Your task to perform on an android device: Set the phone to "Do not disturb". Image 0: 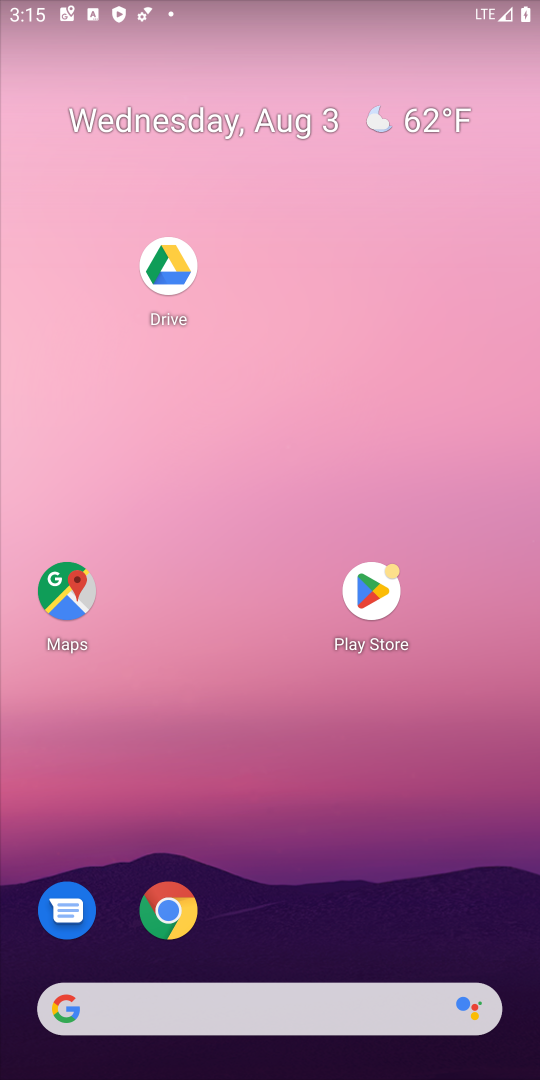
Step 0: drag from (453, 851) to (540, 641)
Your task to perform on an android device: Set the phone to "Do not disturb". Image 1: 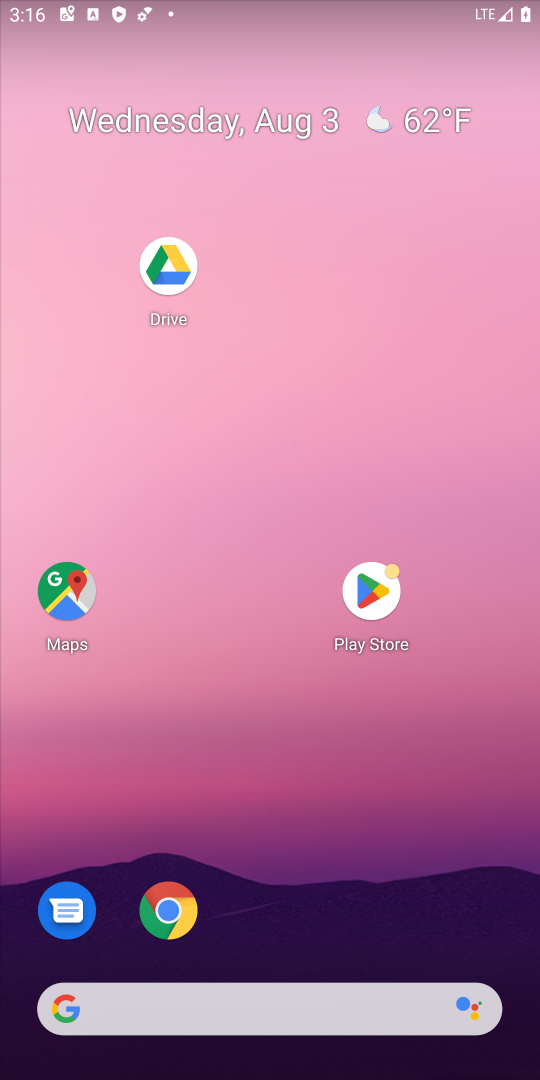
Step 1: drag from (445, 665) to (449, 37)
Your task to perform on an android device: Set the phone to "Do not disturb". Image 2: 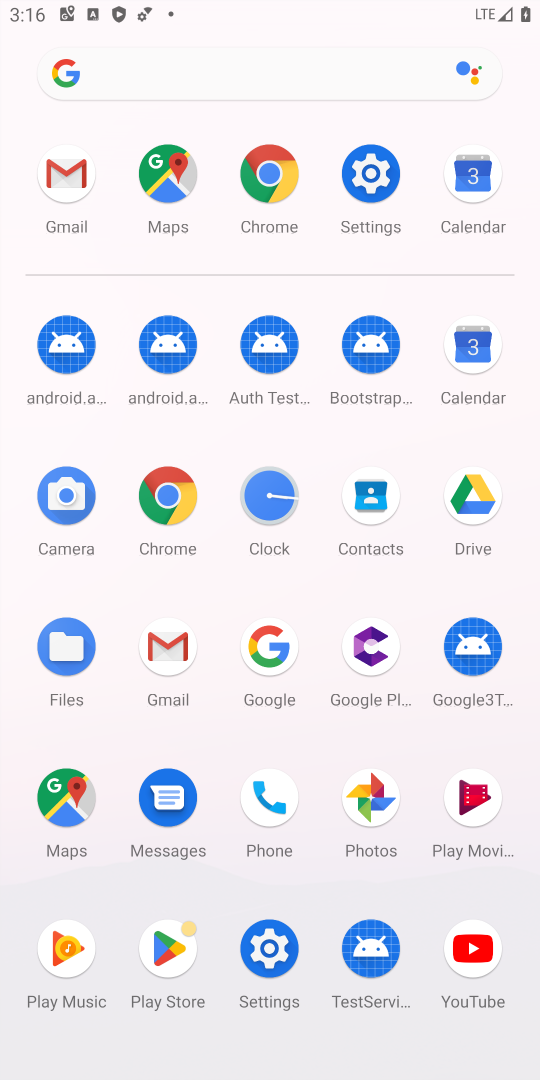
Step 2: click (376, 177)
Your task to perform on an android device: Set the phone to "Do not disturb". Image 3: 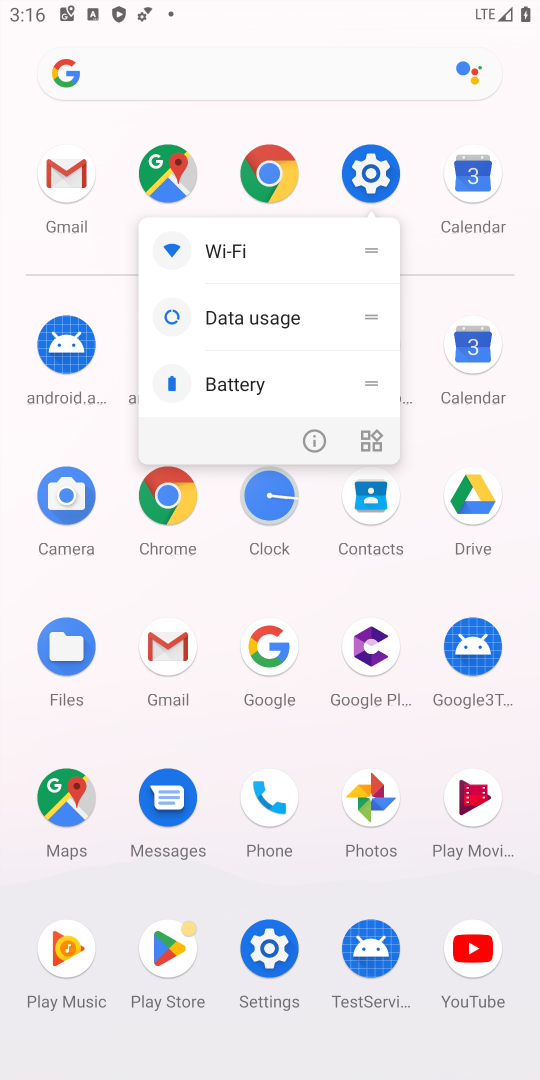
Step 3: click (390, 162)
Your task to perform on an android device: Set the phone to "Do not disturb". Image 4: 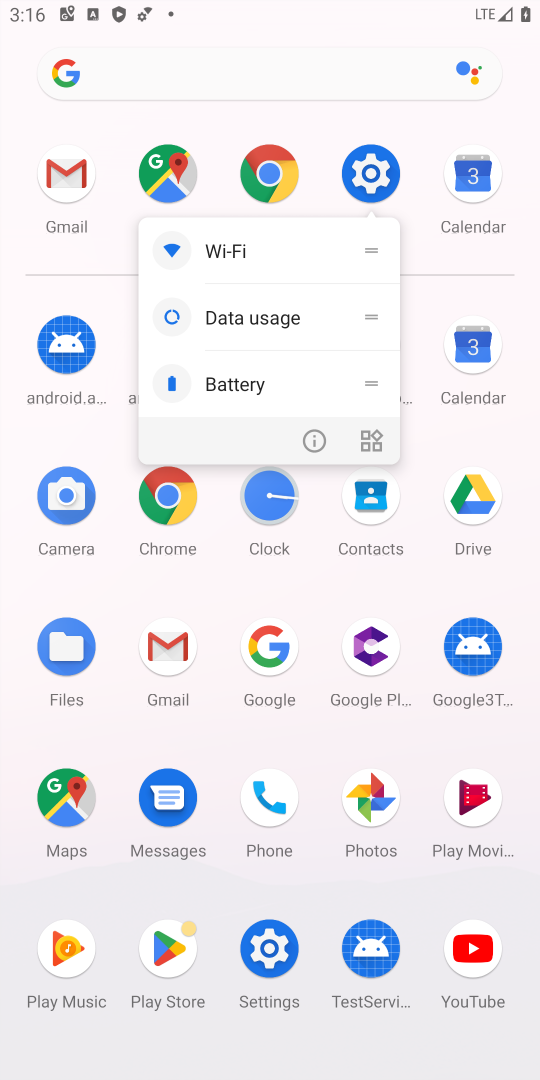
Step 4: click (365, 172)
Your task to perform on an android device: Set the phone to "Do not disturb". Image 5: 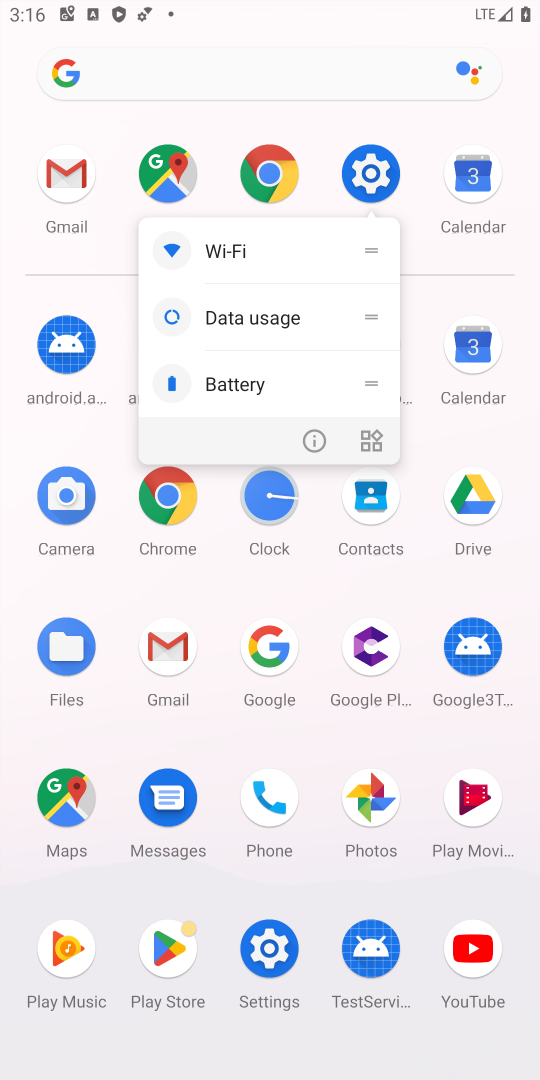
Step 5: click (366, 173)
Your task to perform on an android device: Set the phone to "Do not disturb". Image 6: 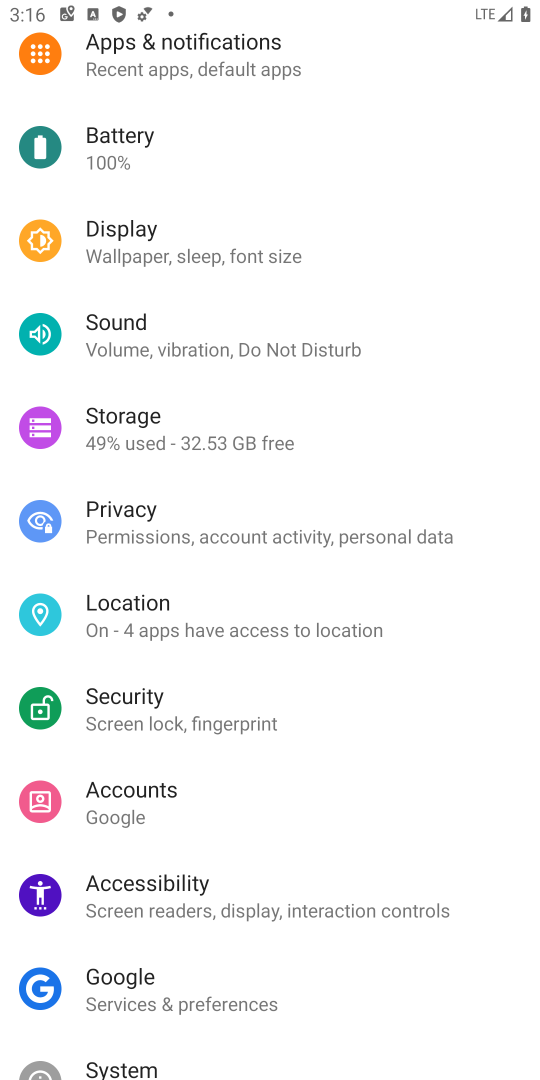
Step 6: click (299, 343)
Your task to perform on an android device: Set the phone to "Do not disturb". Image 7: 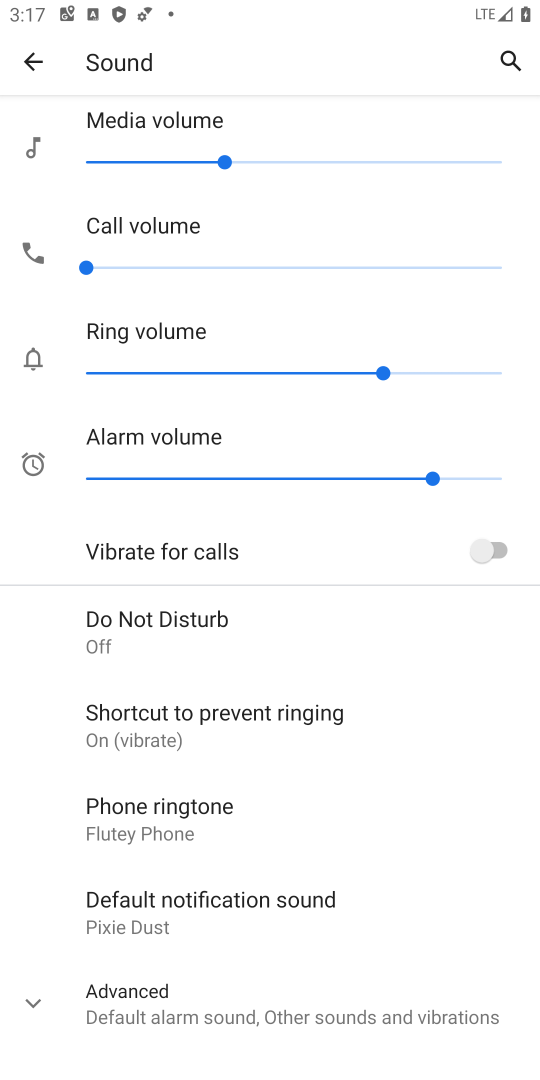
Step 7: click (234, 624)
Your task to perform on an android device: Set the phone to "Do not disturb". Image 8: 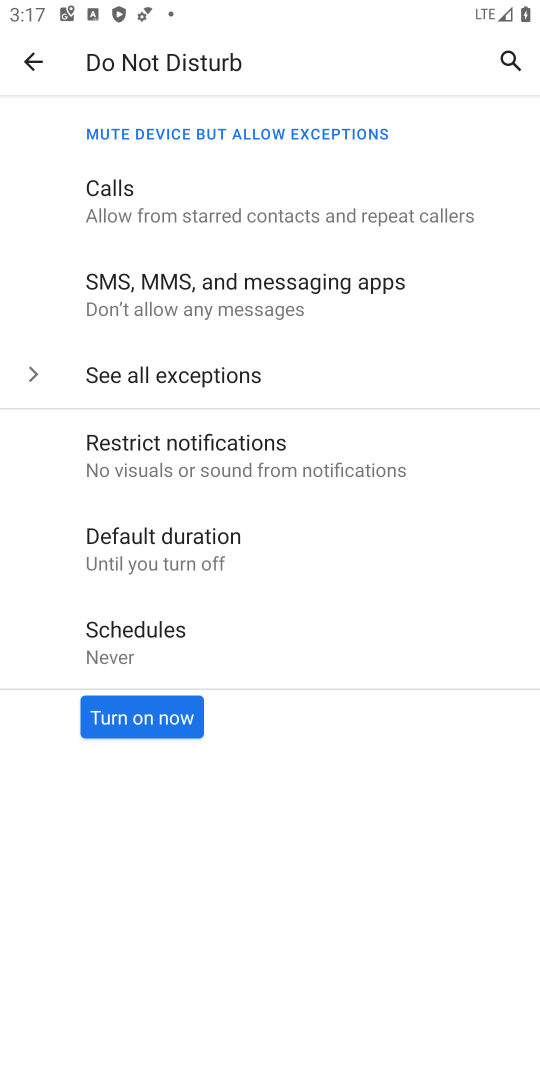
Step 8: click (156, 722)
Your task to perform on an android device: Set the phone to "Do not disturb". Image 9: 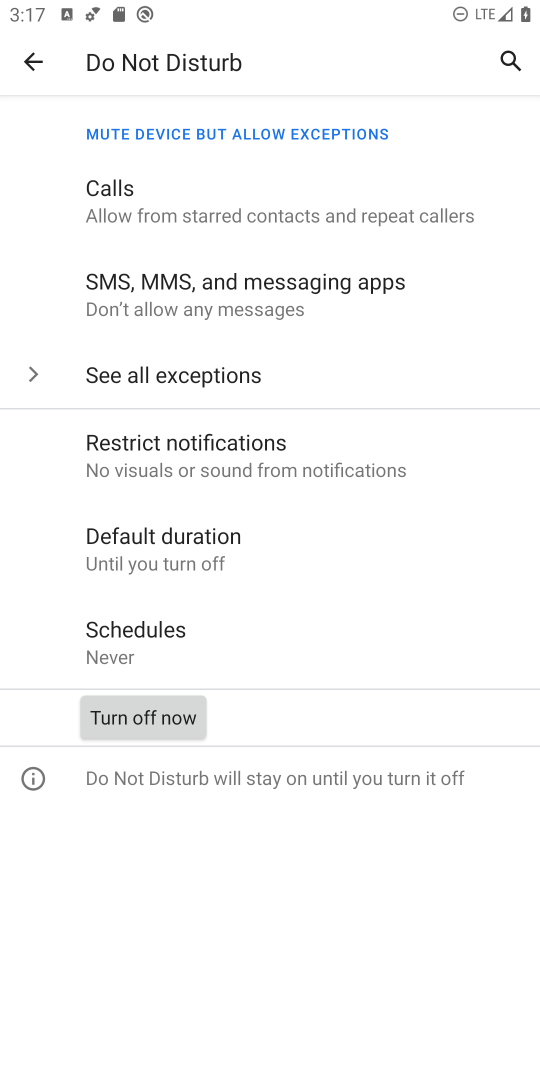
Step 9: task complete